Your task to perform on an android device: install app "Booking.com: Hotels and more" Image 0: 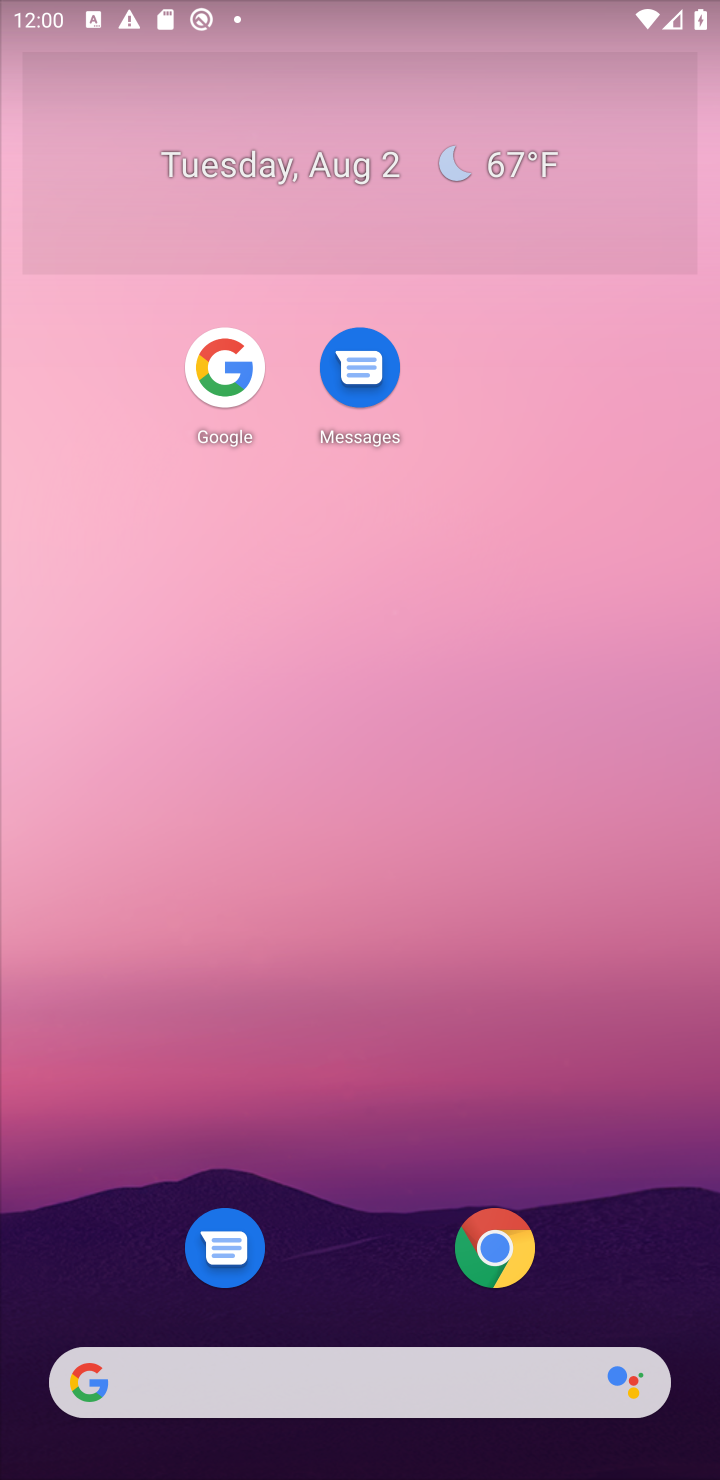
Step 0: drag from (531, 586) to (631, 146)
Your task to perform on an android device: install app "Booking.com: Hotels and more" Image 1: 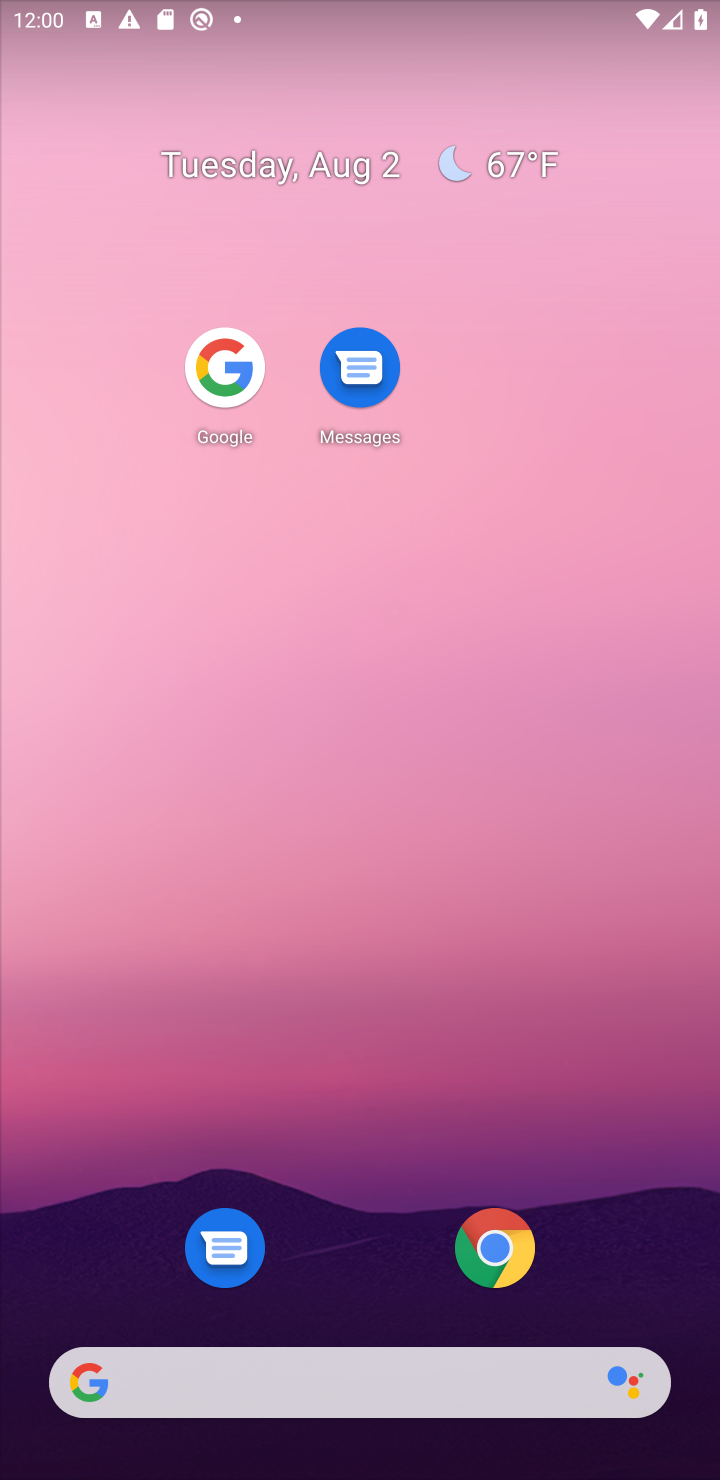
Step 1: drag from (627, 1054) to (582, 75)
Your task to perform on an android device: install app "Booking.com: Hotels and more" Image 2: 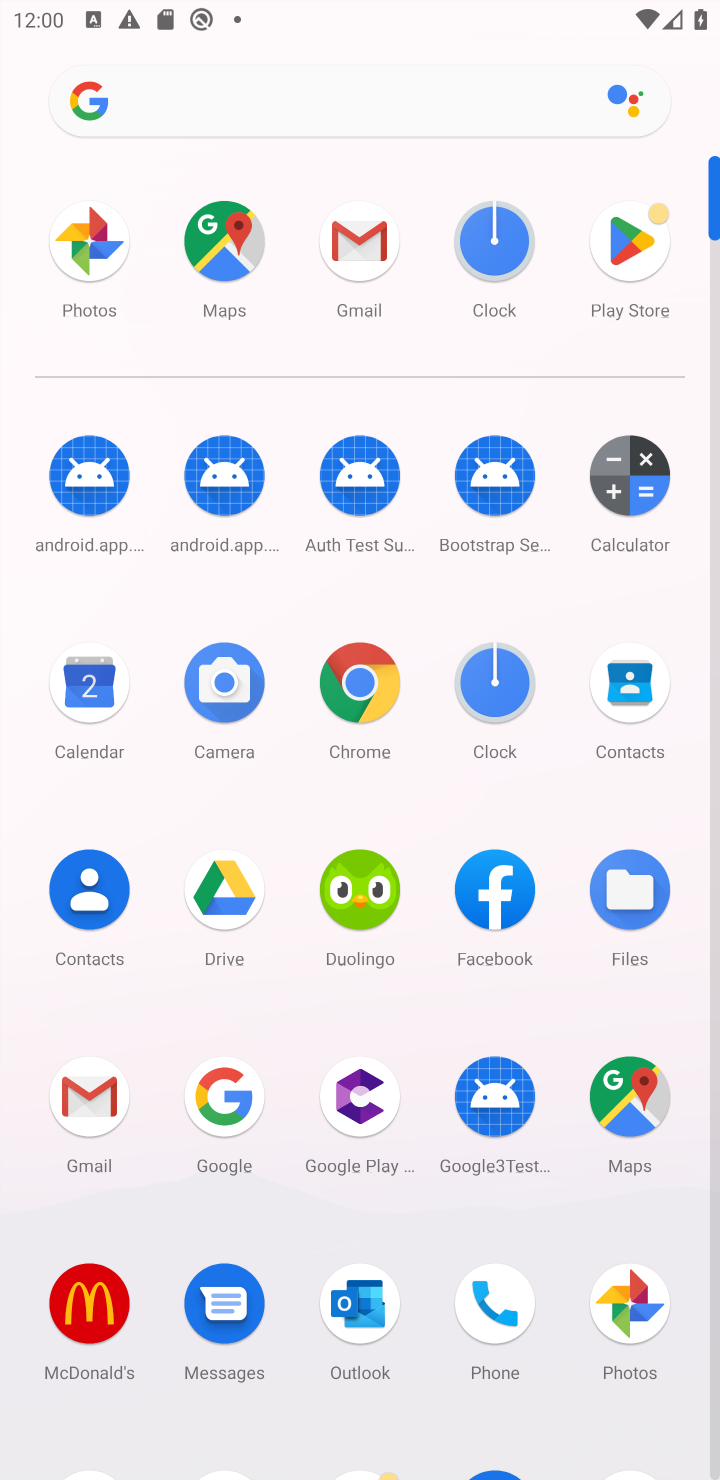
Step 2: drag from (404, 1205) to (364, 316)
Your task to perform on an android device: install app "Booking.com: Hotels and more" Image 3: 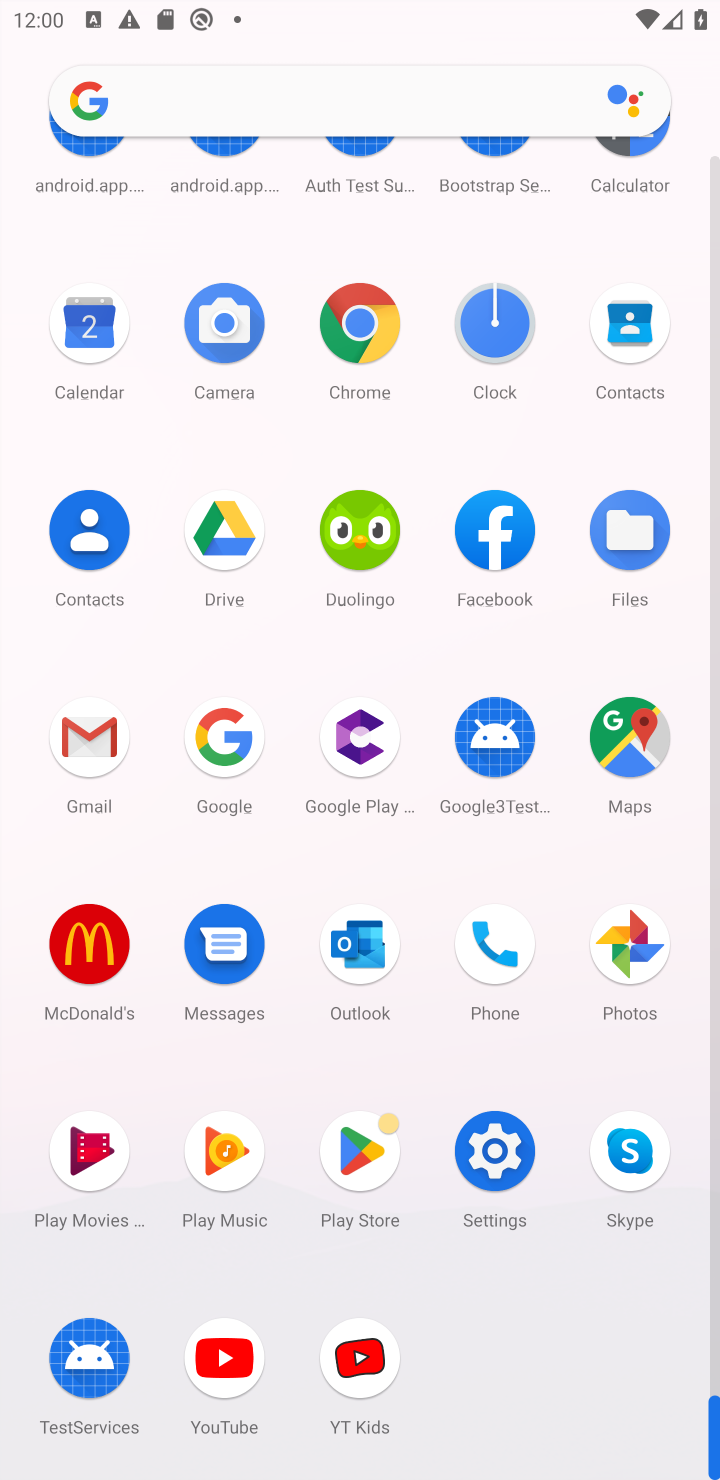
Step 3: click (342, 1148)
Your task to perform on an android device: install app "Booking.com: Hotels and more" Image 4: 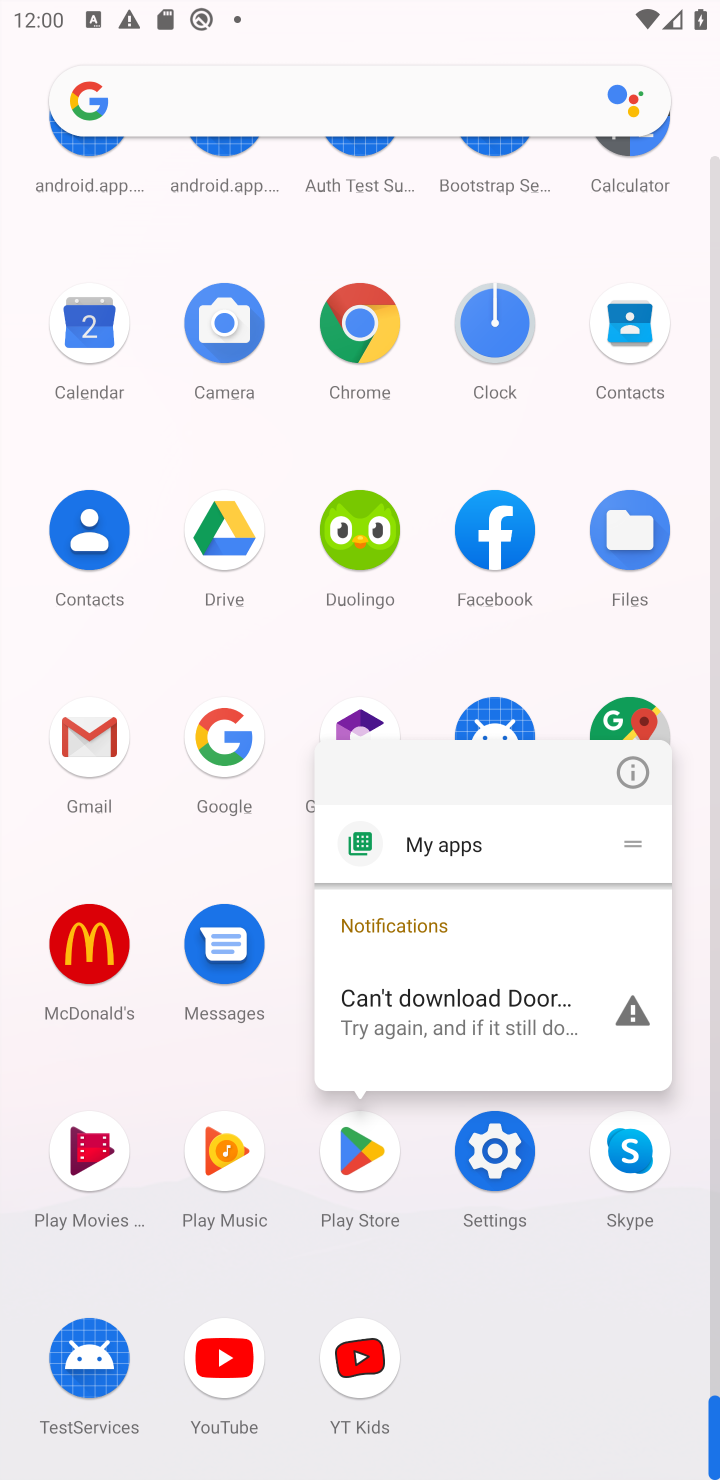
Step 4: click (362, 1181)
Your task to perform on an android device: install app "Booking.com: Hotels and more" Image 5: 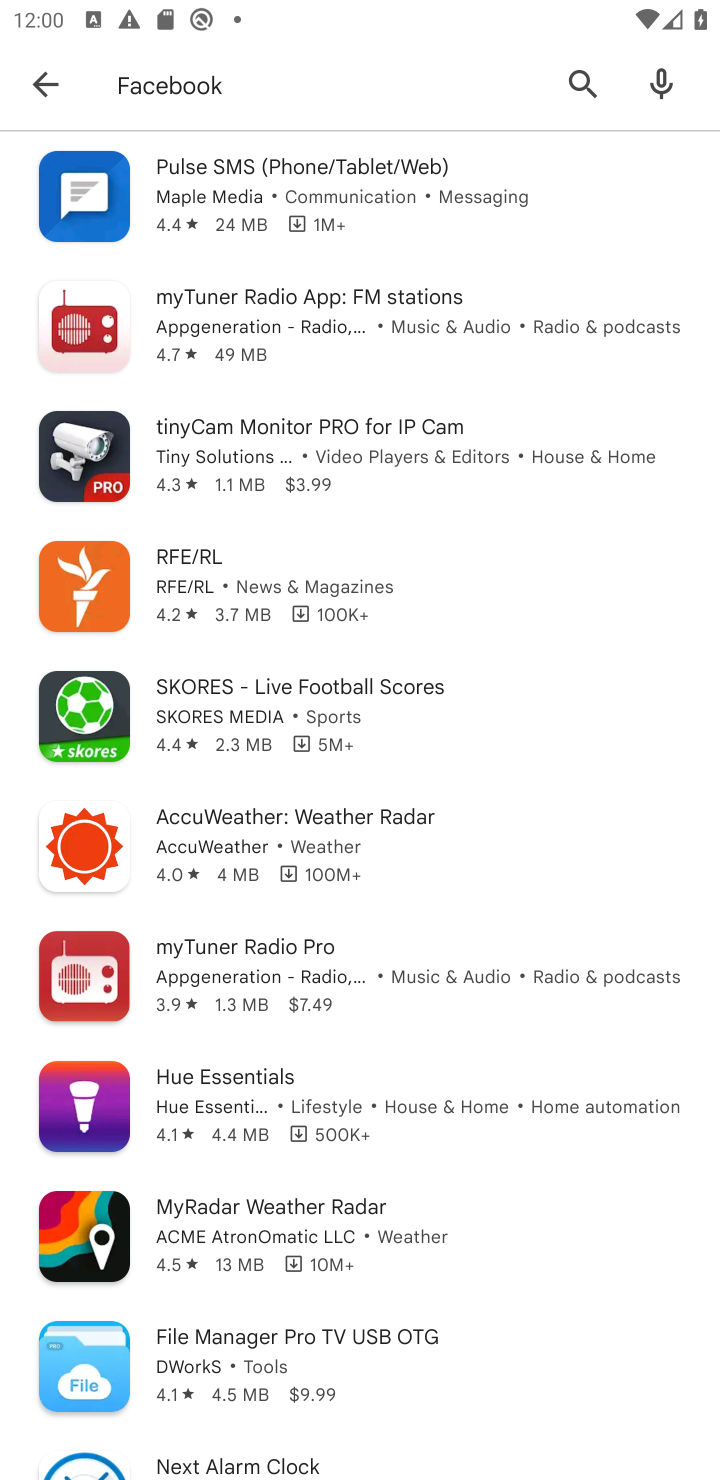
Step 5: click (387, 61)
Your task to perform on an android device: install app "Booking.com: Hotels and more" Image 6: 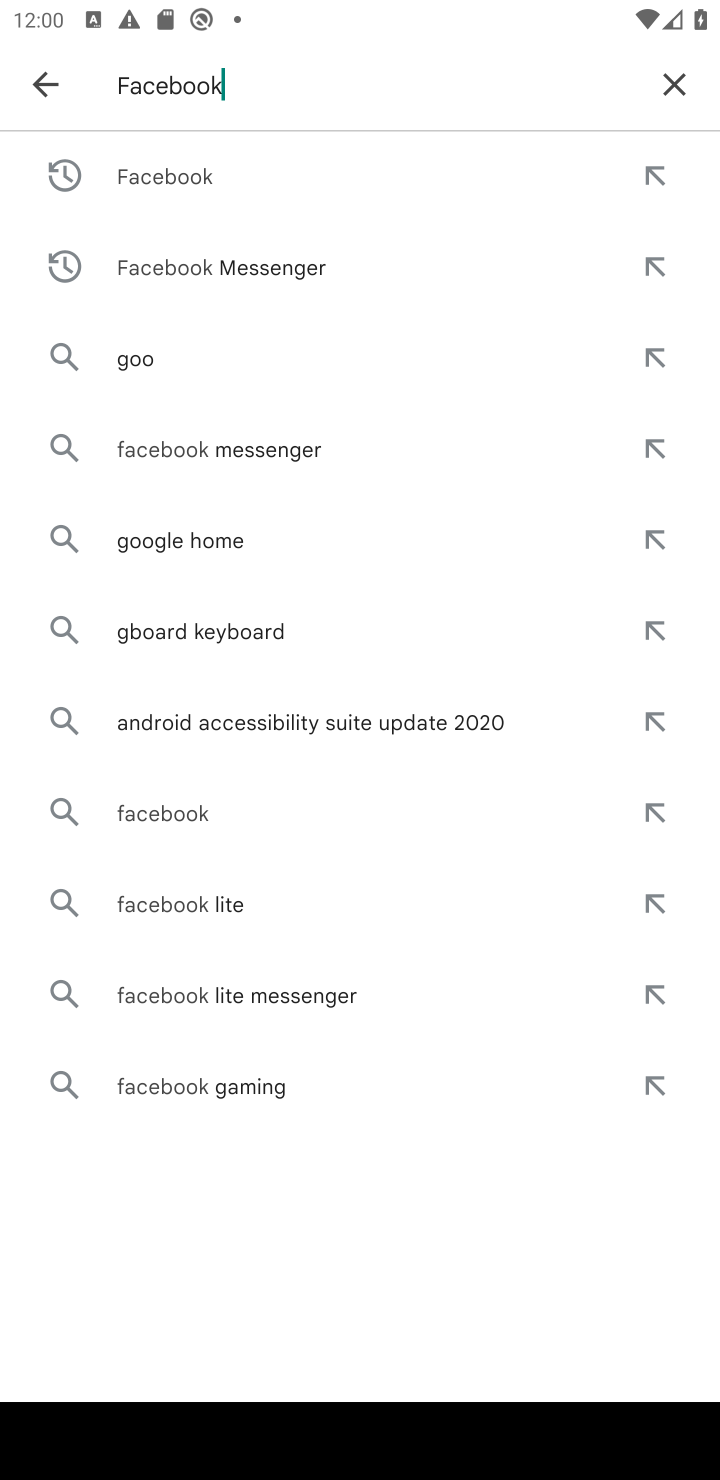
Step 6: click (669, 78)
Your task to perform on an android device: install app "Booking.com: Hotels and more" Image 7: 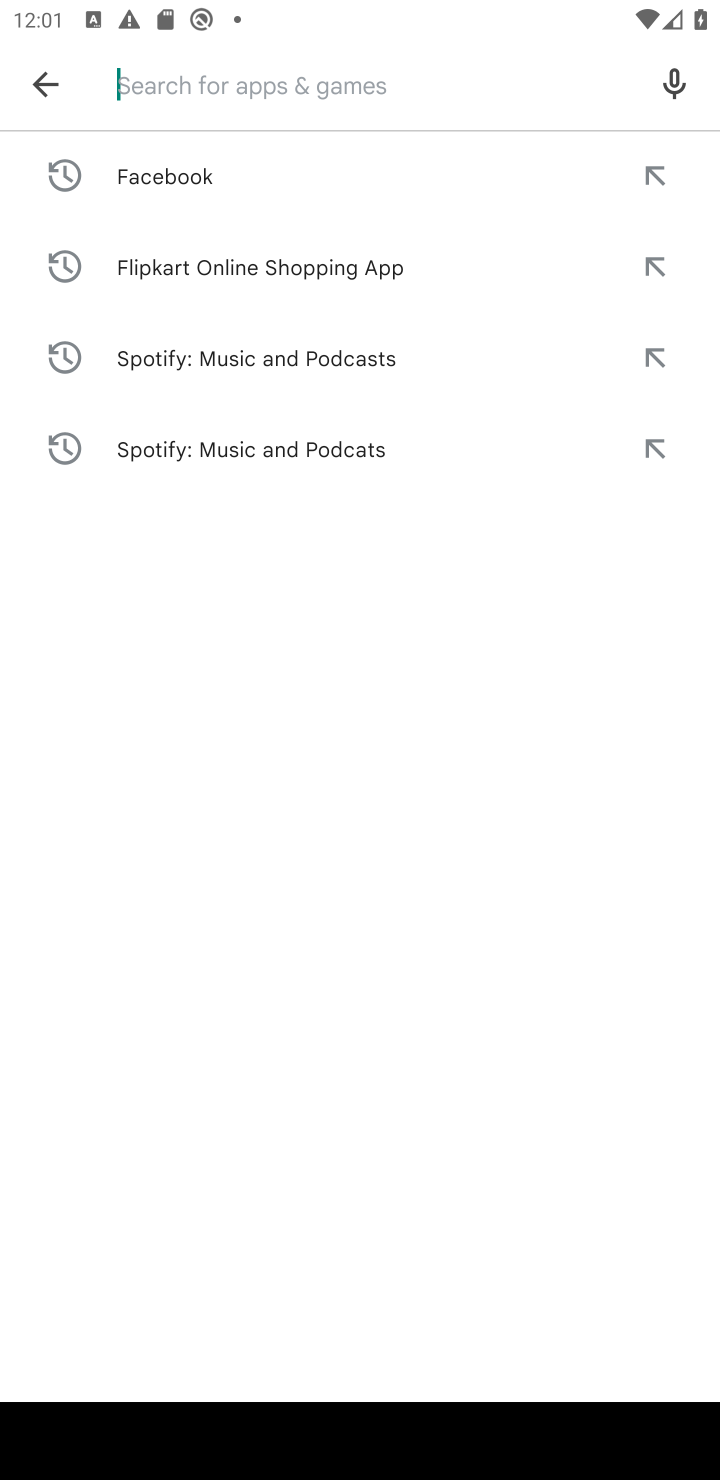
Step 7: type "Booking.com: Hotels and more"
Your task to perform on an android device: install app "Booking.com: Hotels and more" Image 8: 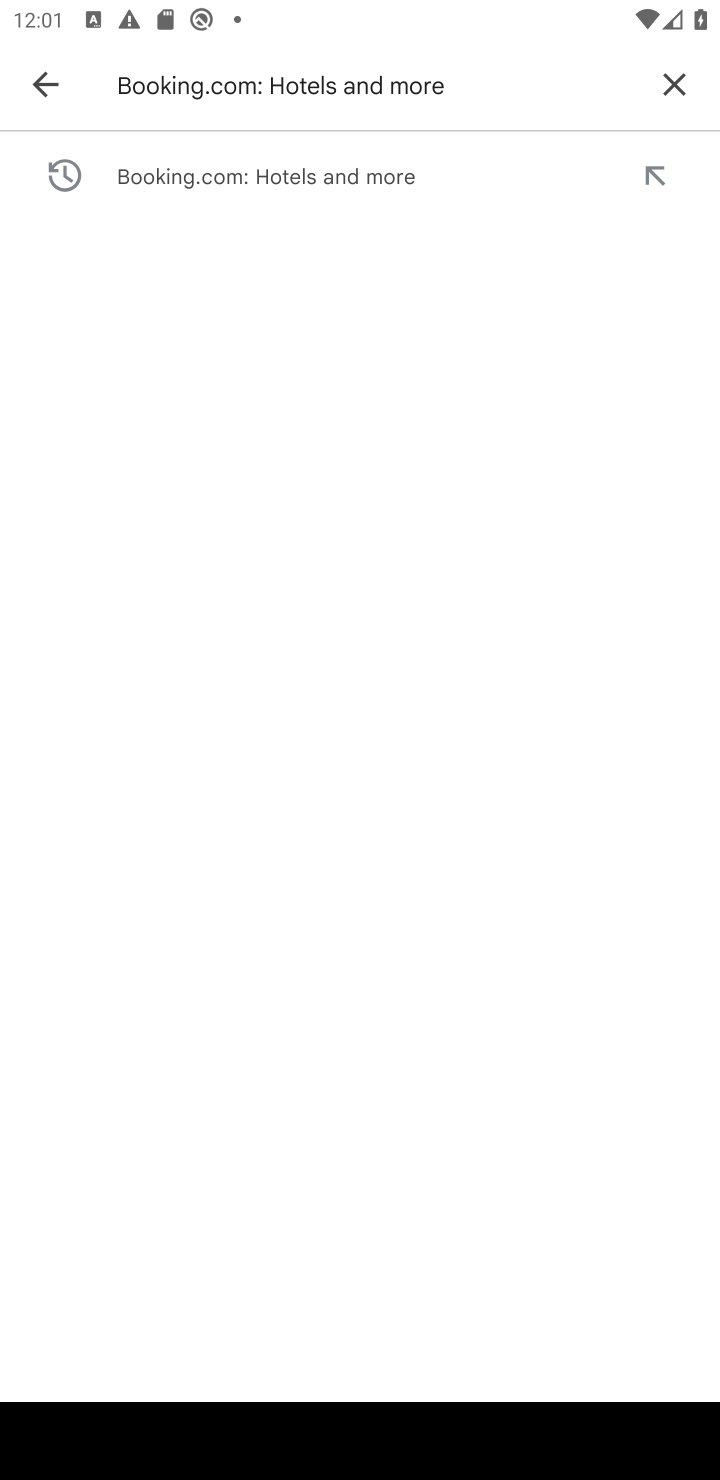
Step 8: press enter
Your task to perform on an android device: install app "Booking.com: Hotels and more" Image 9: 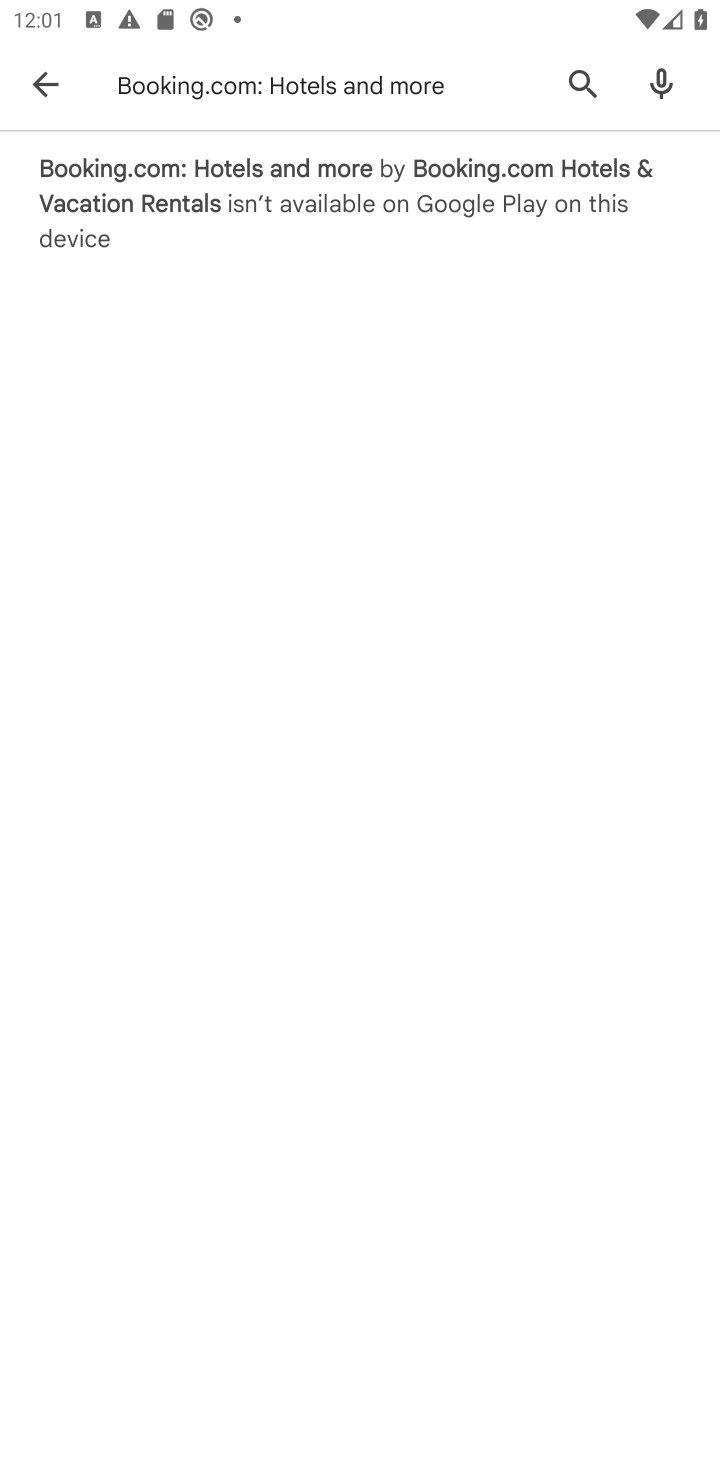
Step 9: press enter
Your task to perform on an android device: install app "Booking.com: Hotels and more" Image 10: 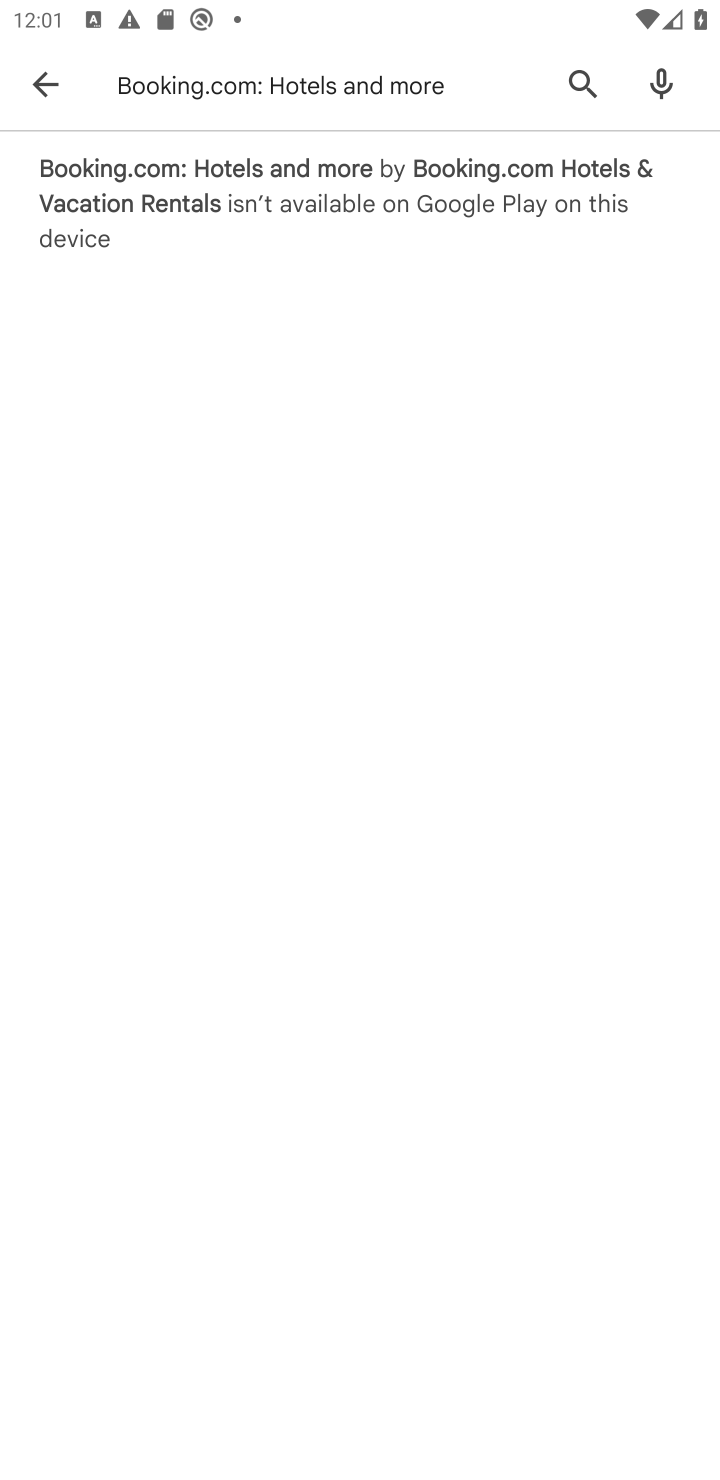
Step 10: task complete